Your task to perform on an android device: open device folders in google photos Image 0: 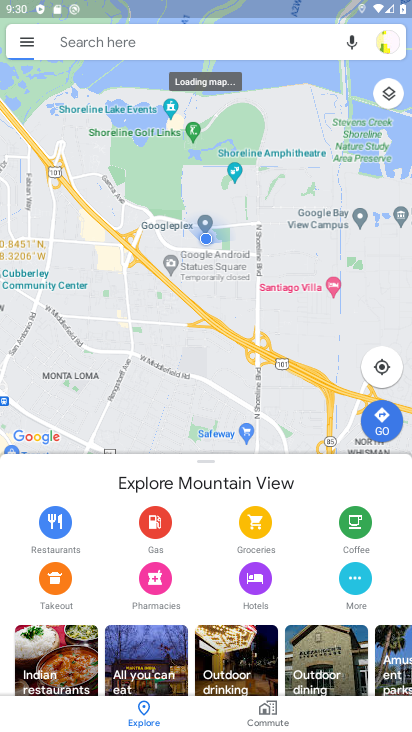
Step 0: press home button
Your task to perform on an android device: open device folders in google photos Image 1: 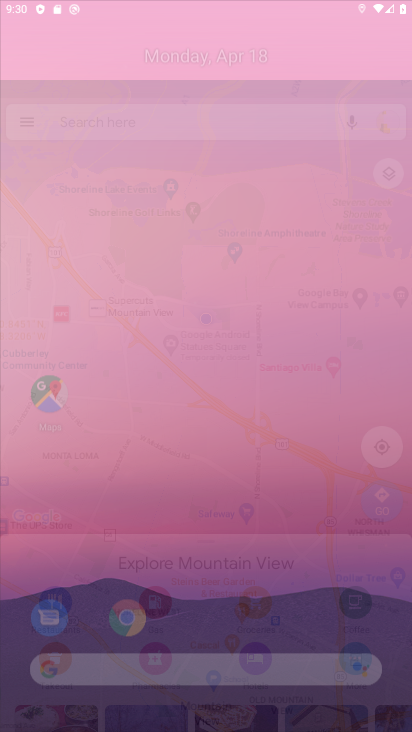
Step 1: press home button
Your task to perform on an android device: open device folders in google photos Image 2: 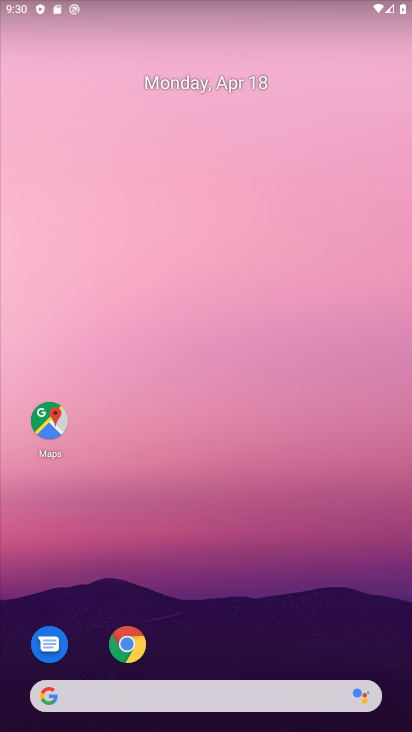
Step 2: drag from (203, 623) to (249, 162)
Your task to perform on an android device: open device folders in google photos Image 3: 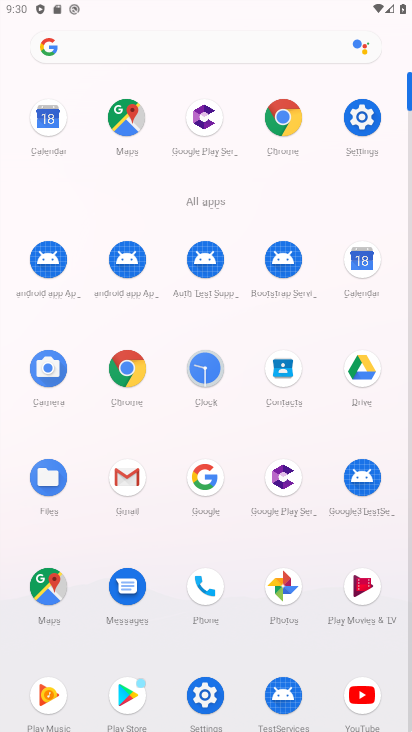
Step 3: click (292, 579)
Your task to perform on an android device: open device folders in google photos Image 4: 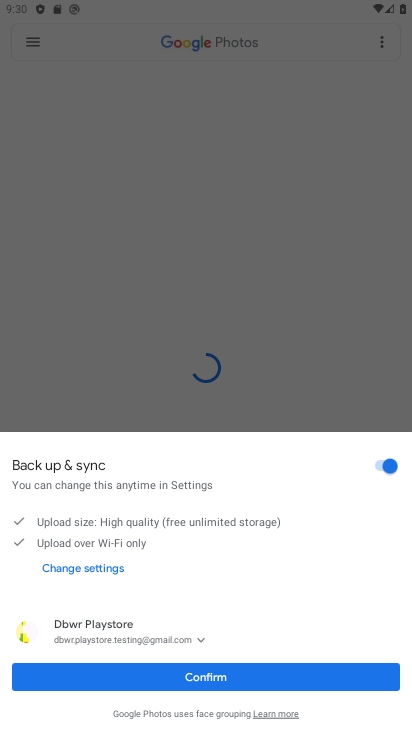
Step 4: click (176, 672)
Your task to perform on an android device: open device folders in google photos Image 5: 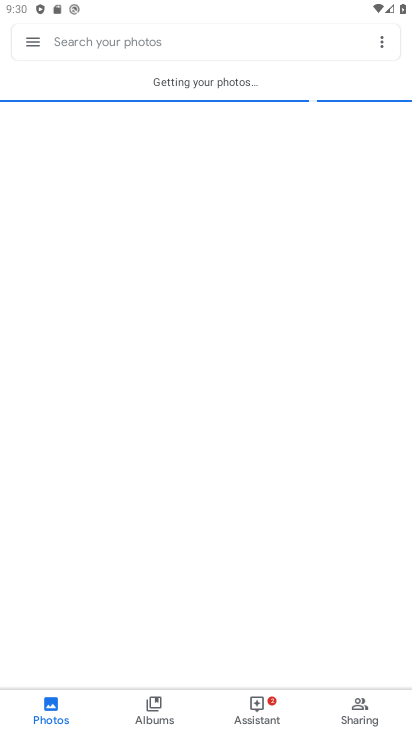
Step 5: click (33, 46)
Your task to perform on an android device: open device folders in google photos Image 6: 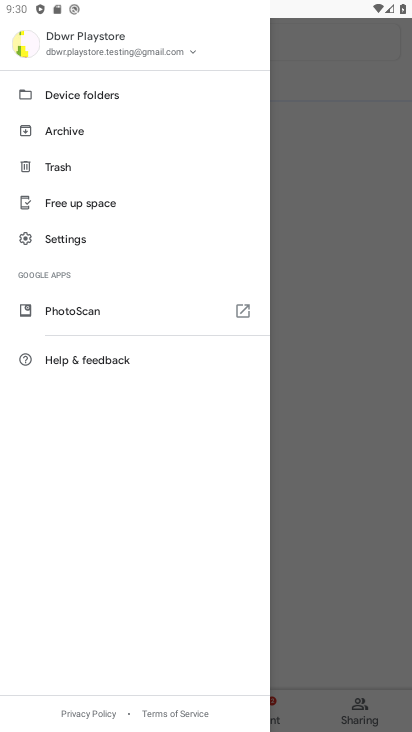
Step 6: click (72, 91)
Your task to perform on an android device: open device folders in google photos Image 7: 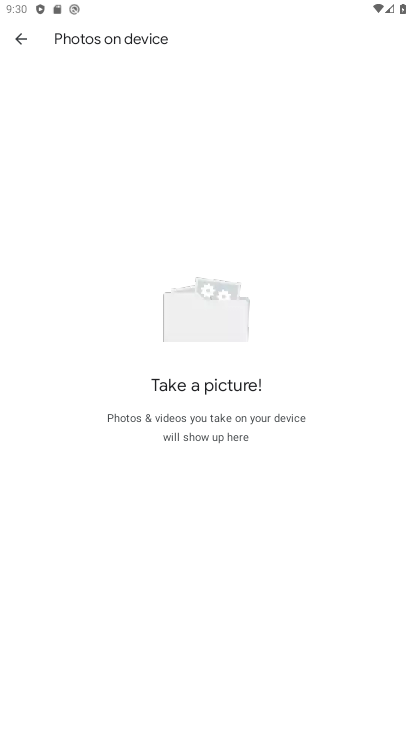
Step 7: task complete